Your task to perform on an android device: turn on the 24-hour format for clock Image 0: 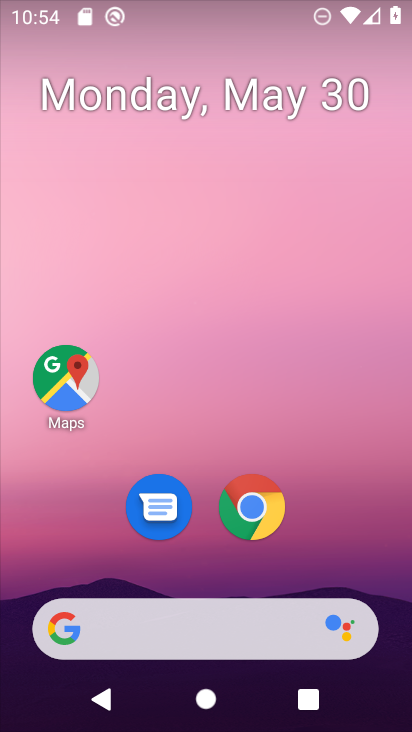
Step 0: drag from (390, 628) to (267, 15)
Your task to perform on an android device: turn on the 24-hour format for clock Image 1: 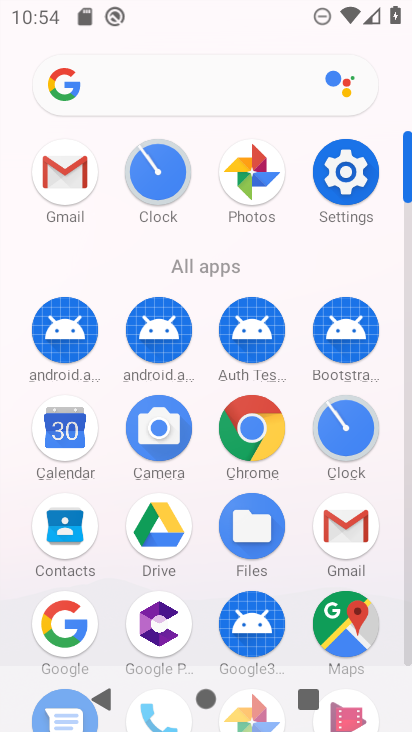
Step 1: click (168, 183)
Your task to perform on an android device: turn on the 24-hour format for clock Image 2: 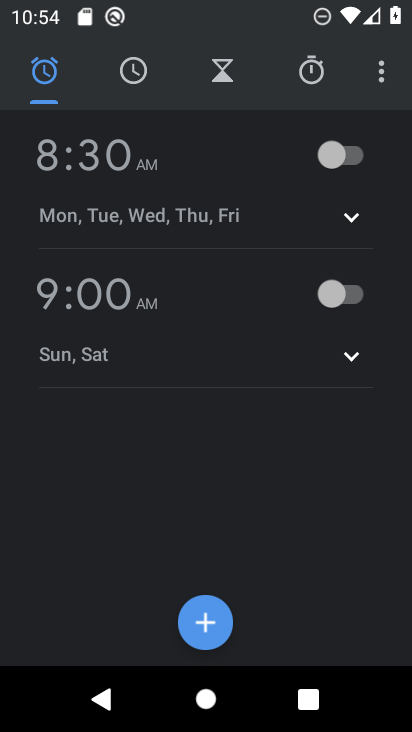
Step 2: click (385, 70)
Your task to perform on an android device: turn on the 24-hour format for clock Image 3: 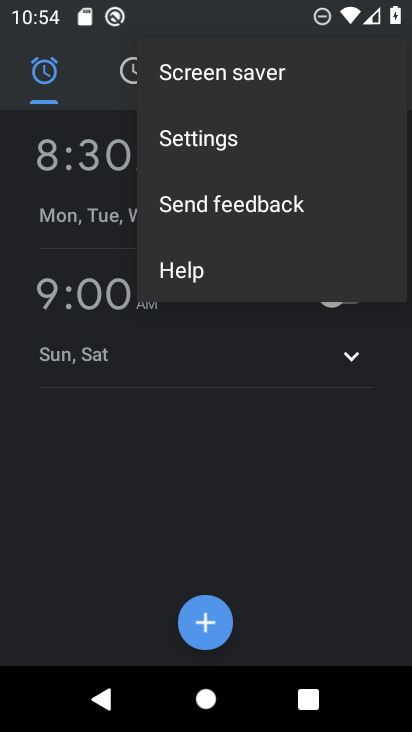
Step 3: click (229, 132)
Your task to perform on an android device: turn on the 24-hour format for clock Image 4: 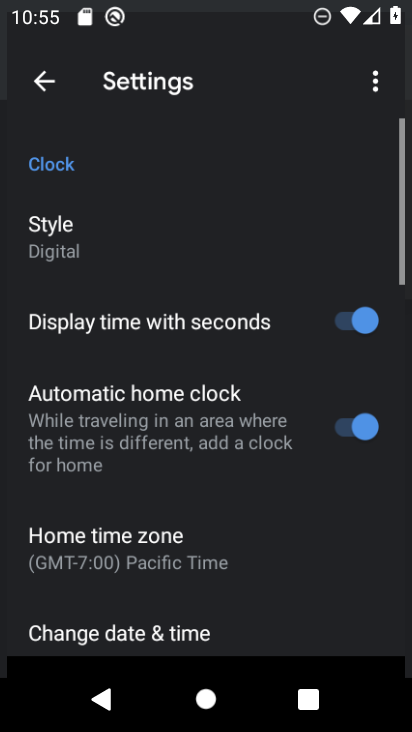
Step 4: click (199, 140)
Your task to perform on an android device: turn on the 24-hour format for clock Image 5: 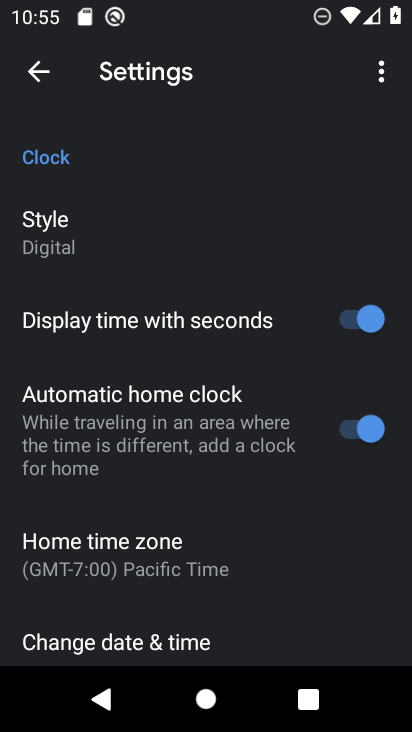
Step 5: task complete